Your task to perform on an android device: turn on sleep mode Image 0: 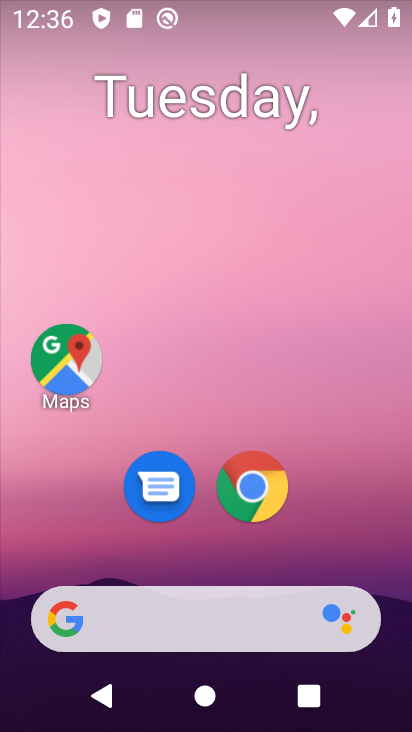
Step 0: drag from (354, 534) to (324, 182)
Your task to perform on an android device: turn on sleep mode Image 1: 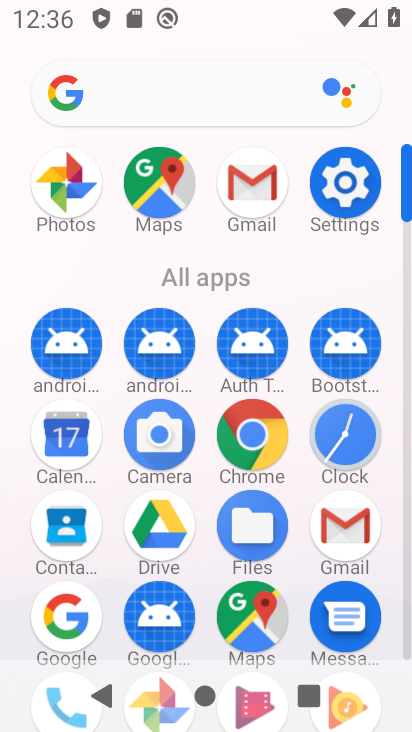
Step 1: click (341, 171)
Your task to perform on an android device: turn on sleep mode Image 2: 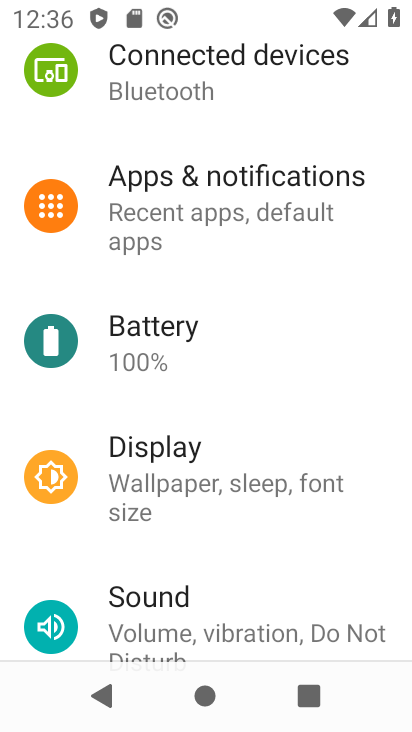
Step 2: click (300, 500)
Your task to perform on an android device: turn on sleep mode Image 3: 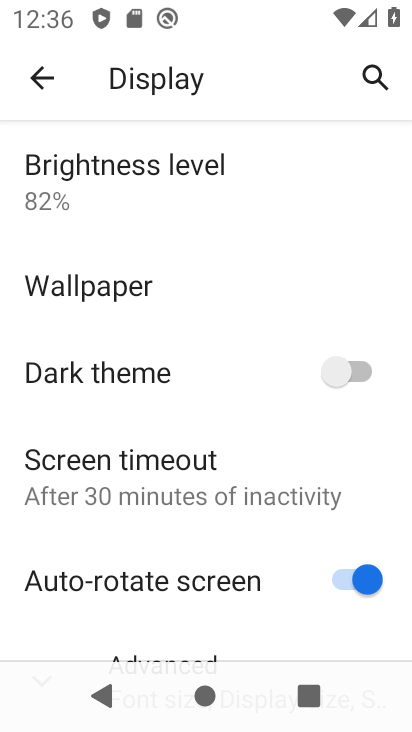
Step 3: drag from (230, 601) to (271, 130)
Your task to perform on an android device: turn on sleep mode Image 4: 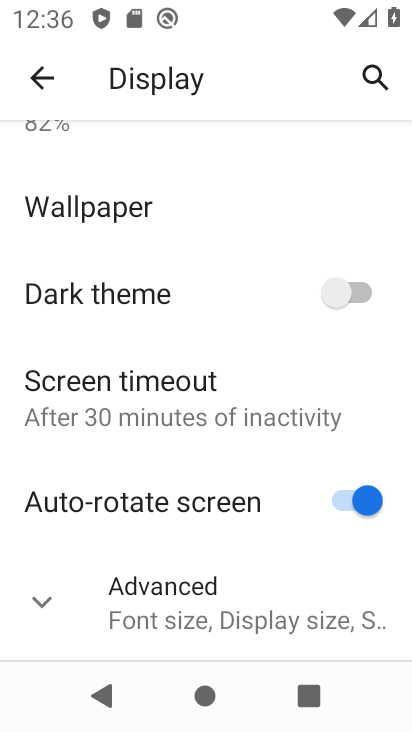
Step 4: click (317, 596)
Your task to perform on an android device: turn on sleep mode Image 5: 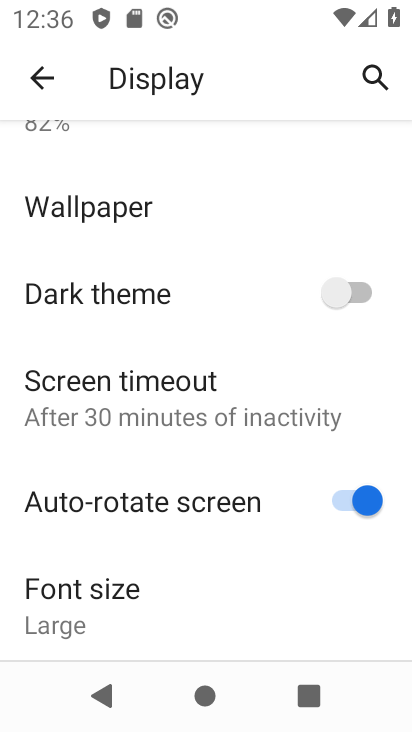
Step 5: task complete